Your task to perform on an android device: Open my contact list Image 0: 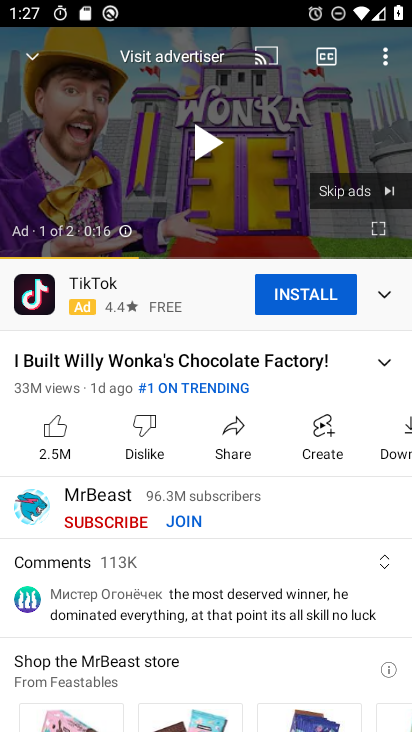
Step 0: press home button
Your task to perform on an android device: Open my contact list Image 1: 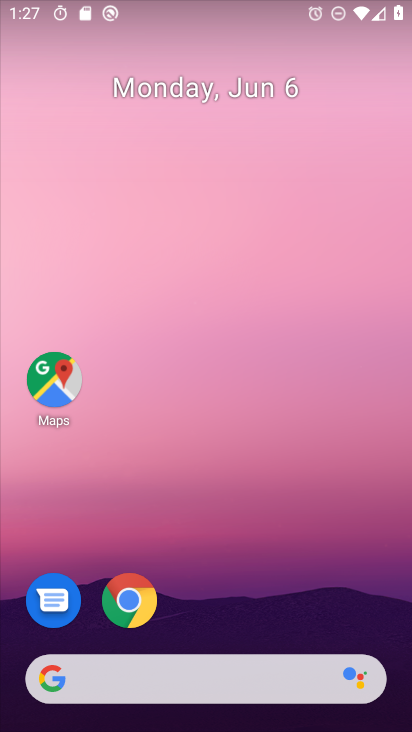
Step 1: drag from (215, 596) to (209, 118)
Your task to perform on an android device: Open my contact list Image 2: 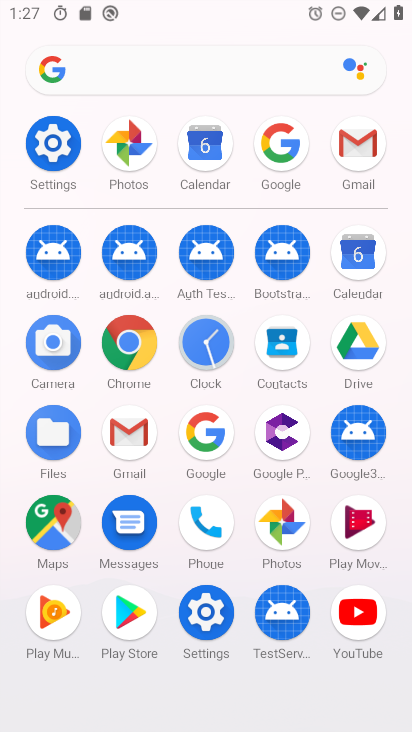
Step 2: click (266, 368)
Your task to perform on an android device: Open my contact list Image 3: 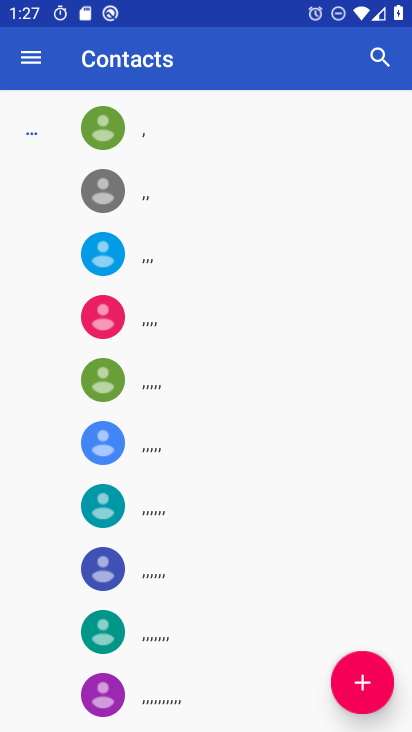
Step 3: task complete